Your task to perform on an android device: Open the phone app and click the voicemail tab. Image 0: 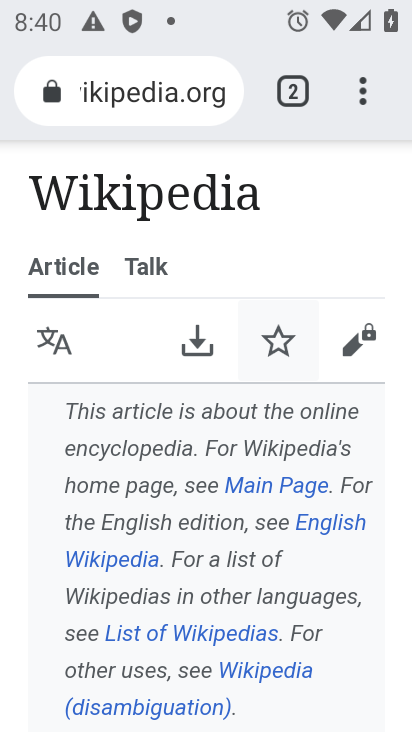
Step 0: press home button
Your task to perform on an android device: Open the phone app and click the voicemail tab. Image 1: 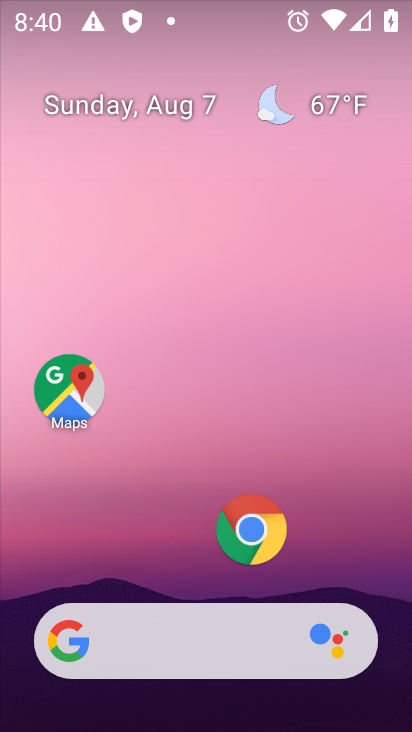
Step 1: drag from (187, 560) to (174, 108)
Your task to perform on an android device: Open the phone app and click the voicemail tab. Image 2: 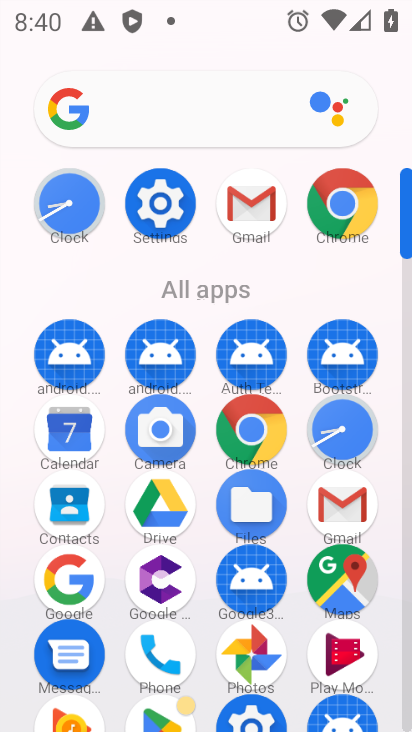
Step 2: click (253, 427)
Your task to perform on an android device: Open the phone app and click the voicemail tab. Image 3: 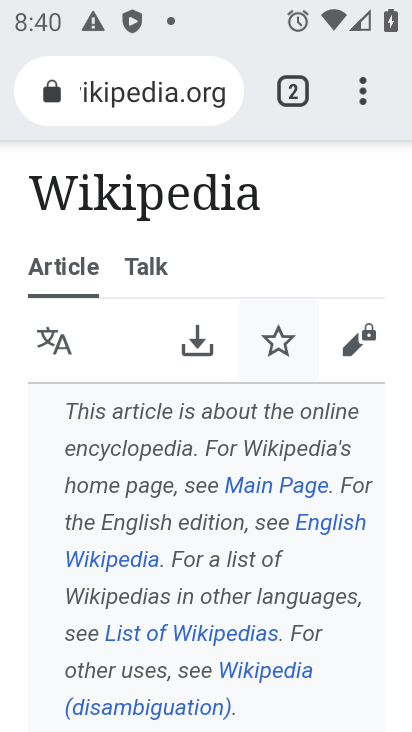
Step 3: press home button
Your task to perform on an android device: Open the phone app and click the voicemail tab. Image 4: 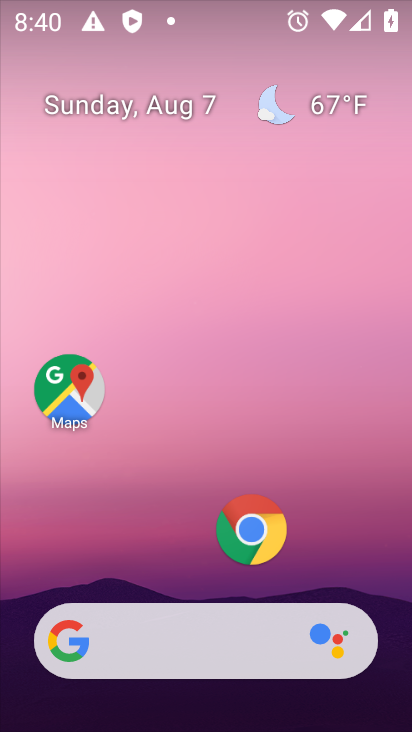
Step 4: drag from (176, 532) to (208, 54)
Your task to perform on an android device: Open the phone app and click the voicemail tab. Image 5: 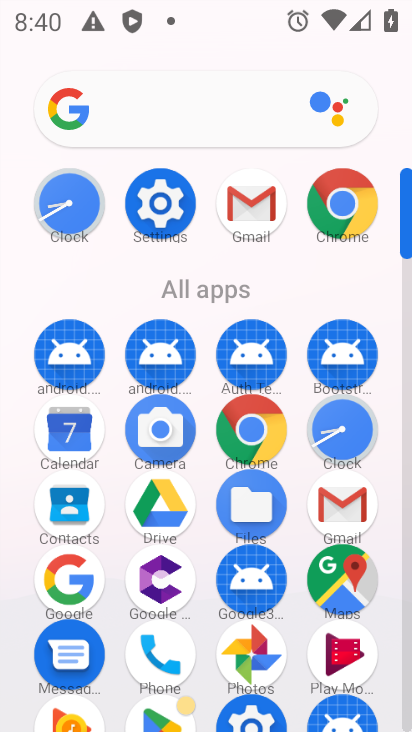
Step 5: click (170, 646)
Your task to perform on an android device: Open the phone app and click the voicemail tab. Image 6: 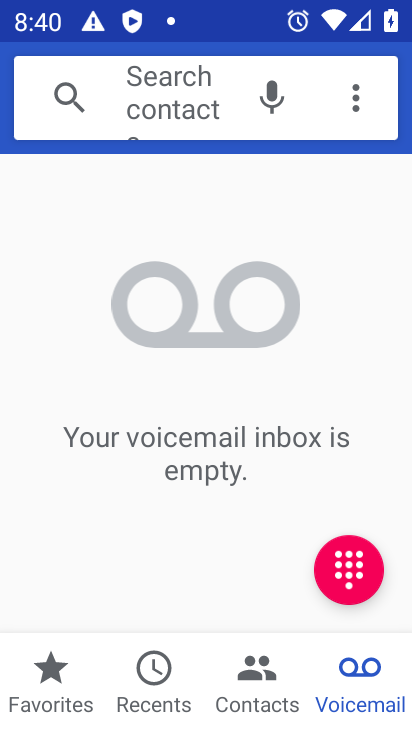
Step 6: task complete